Your task to perform on an android device: Search for pizza restaurants on Maps Image 0: 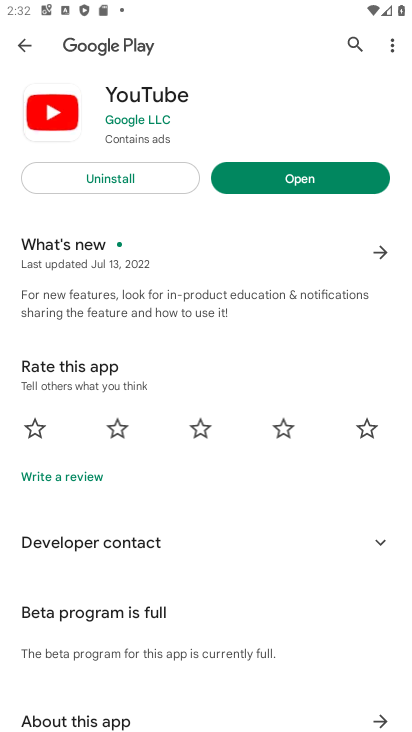
Step 0: press home button
Your task to perform on an android device: Search for pizza restaurants on Maps Image 1: 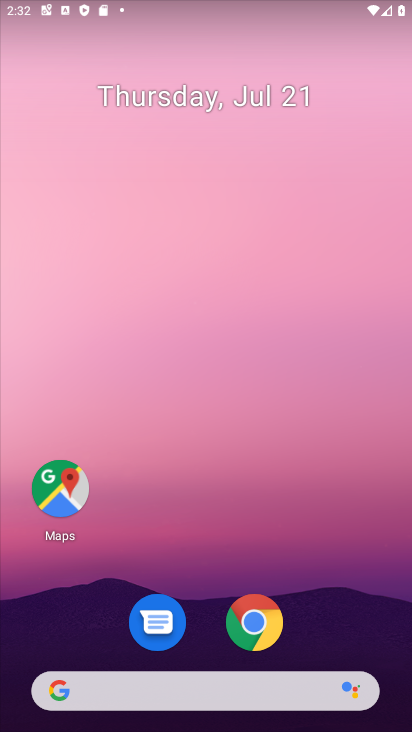
Step 1: click (46, 506)
Your task to perform on an android device: Search for pizza restaurants on Maps Image 2: 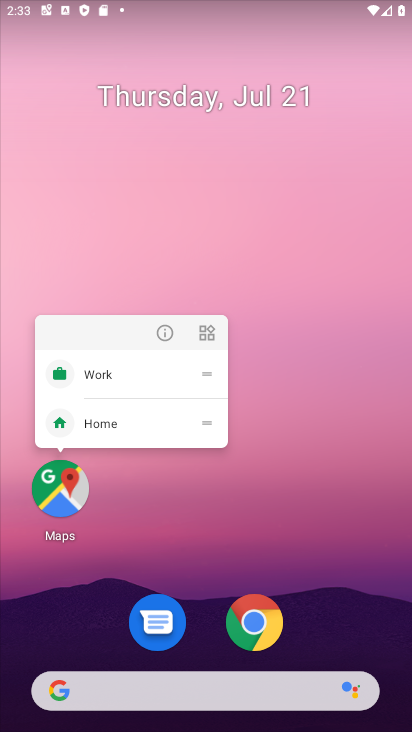
Step 2: click (59, 521)
Your task to perform on an android device: Search for pizza restaurants on Maps Image 3: 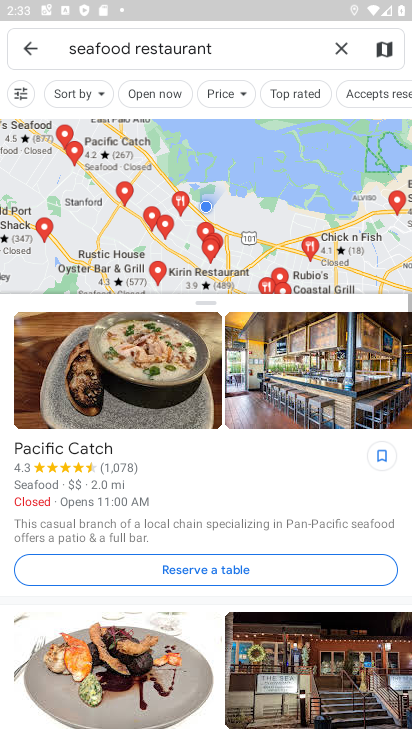
Step 3: click (340, 48)
Your task to perform on an android device: Search for pizza restaurants on Maps Image 4: 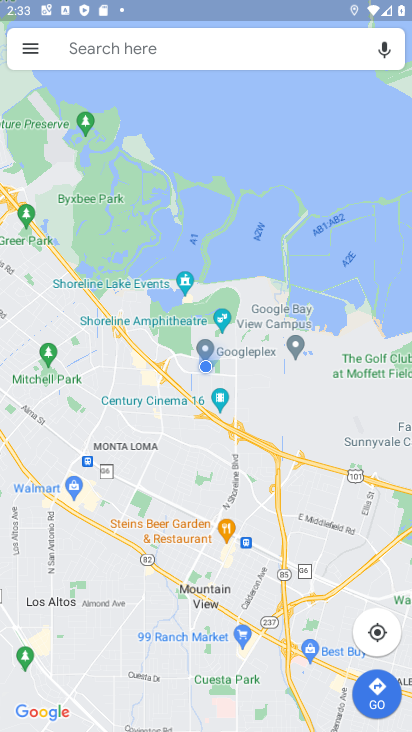
Step 4: click (129, 54)
Your task to perform on an android device: Search for pizza restaurants on Maps Image 5: 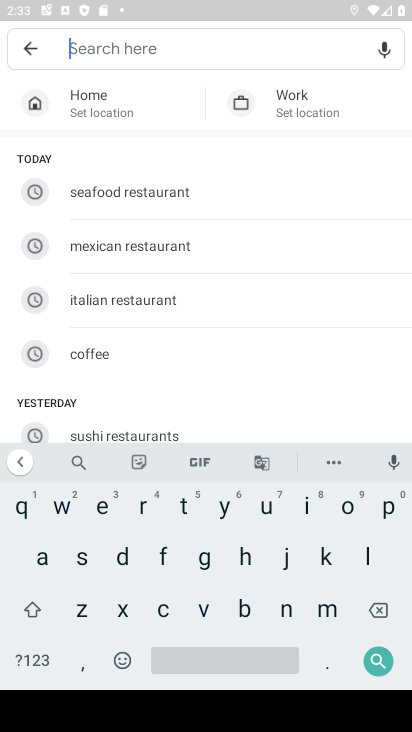
Step 5: click (382, 509)
Your task to perform on an android device: Search for pizza restaurants on Maps Image 6: 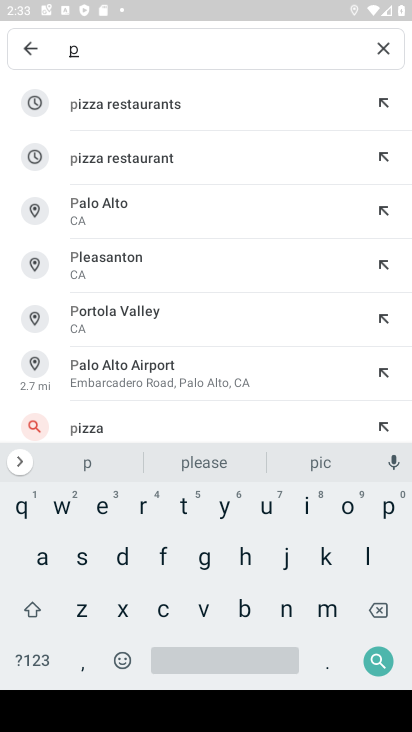
Step 6: click (177, 93)
Your task to perform on an android device: Search for pizza restaurants on Maps Image 7: 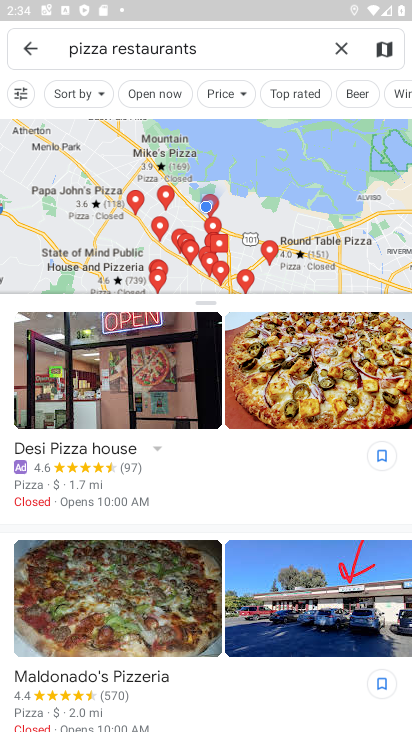
Step 7: task complete